Your task to perform on an android device: turn on improve location accuracy Image 0: 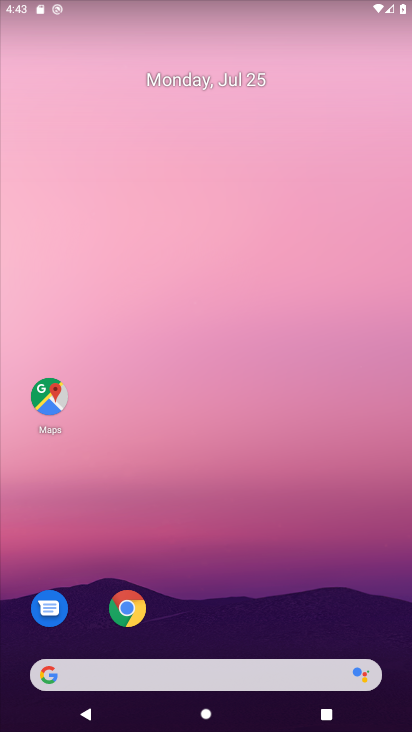
Step 0: drag from (209, 599) to (227, 7)
Your task to perform on an android device: turn on improve location accuracy Image 1: 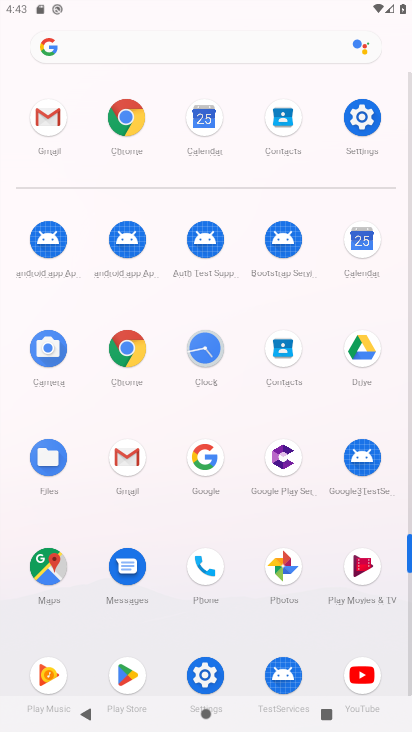
Step 1: click (200, 664)
Your task to perform on an android device: turn on improve location accuracy Image 2: 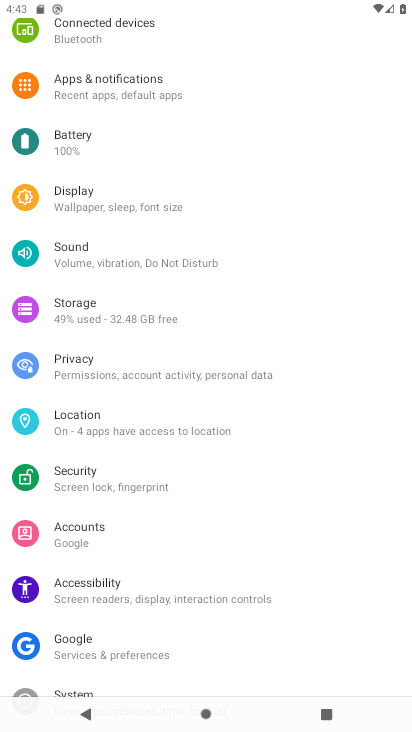
Step 2: click (100, 430)
Your task to perform on an android device: turn on improve location accuracy Image 3: 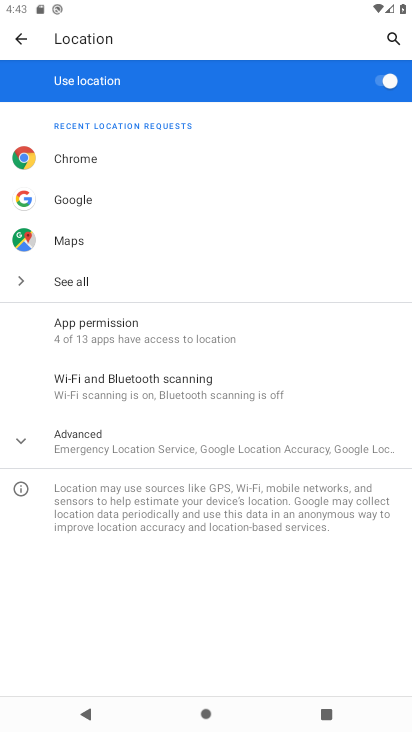
Step 3: click (115, 451)
Your task to perform on an android device: turn on improve location accuracy Image 4: 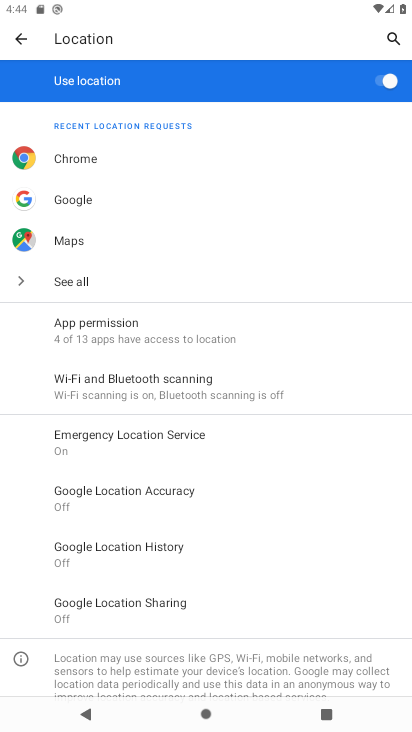
Step 4: click (166, 499)
Your task to perform on an android device: turn on improve location accuracy Image 5: 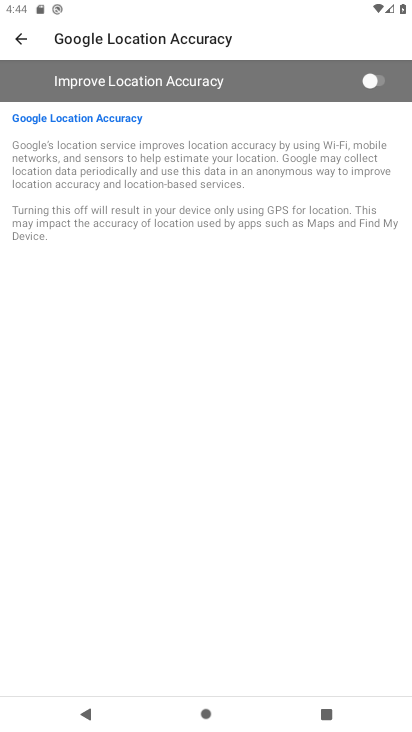
Step 5: click (390, 83)
Your task to perform on an android device: turn on improve location accuracy Image 6: 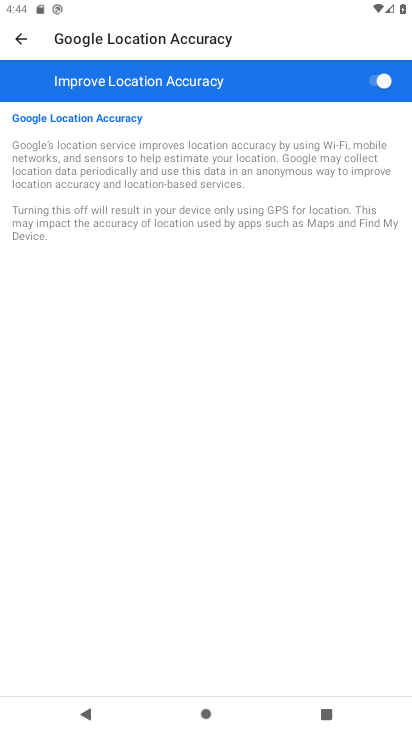
Step 6: task complete